Your task to perform on an android device: turn on javascript in the chrome app Image 0: 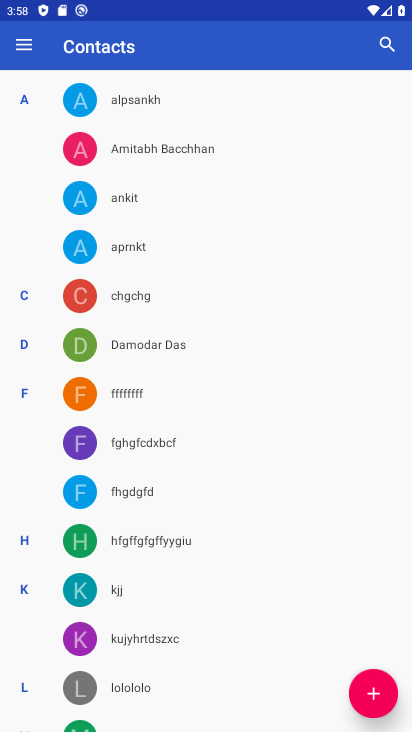
Step 0: press home button
Your task to perform on an android device: turn on javascript in the chrome app Image 1: 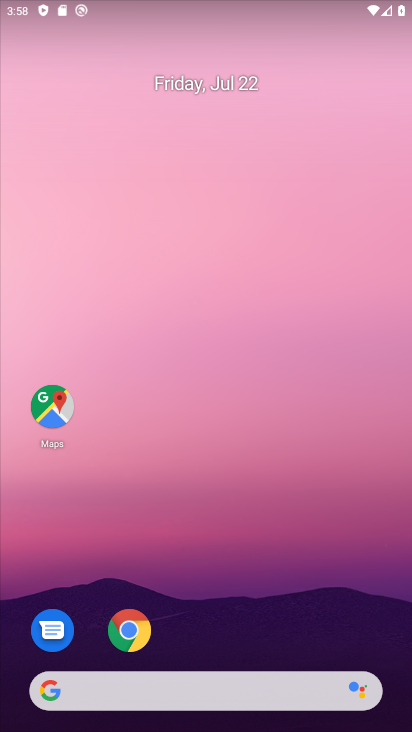
Step 1: click (133, 619)
Your task to perform on an android device: turn on javascript in the chrome app Image 2: 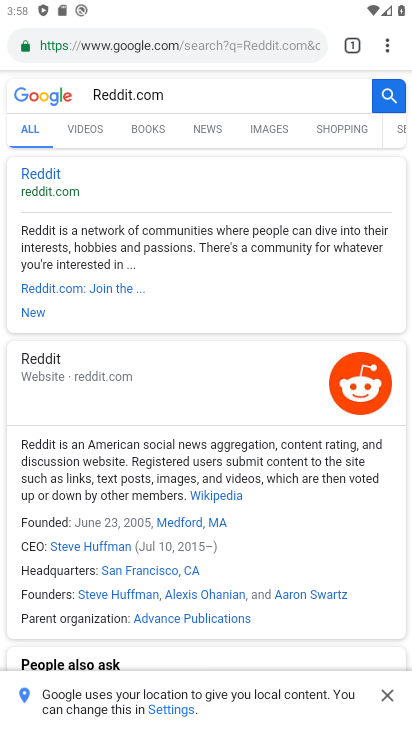
Step 2: click (388, 51)
Your task to perform on an android device: turn on javascript in the chrome app Image 3: 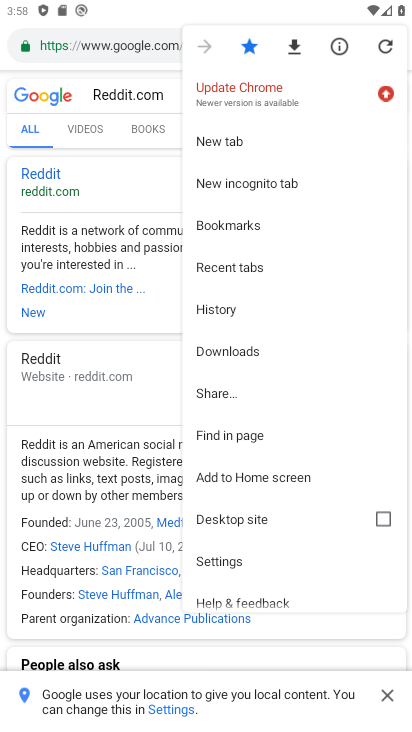
Step 3: click (228, 558)
Your task to perform on an android device: turn on javascript in the chrome app Image 4: 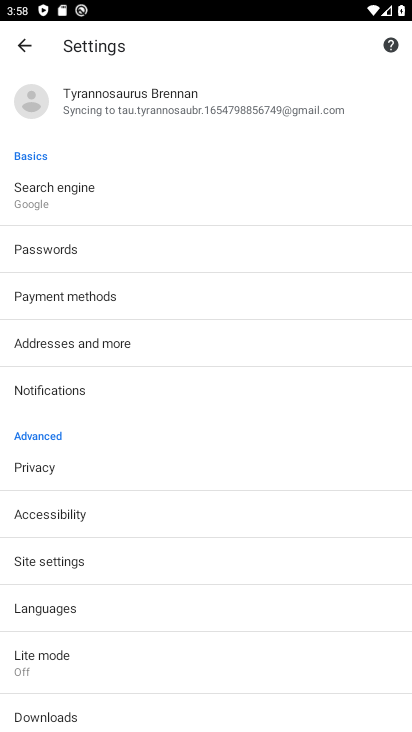
Step 4: click (63, 561)
Your task to perform on an android device: turn on javascript in the chrome app Image 5: 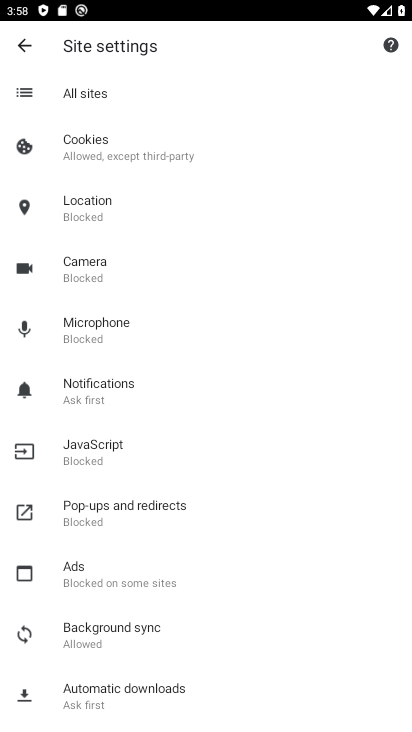
Step 5: click (125, 451)
Your task to perform on an android device: turn on javascript in the chrome app Image 6: 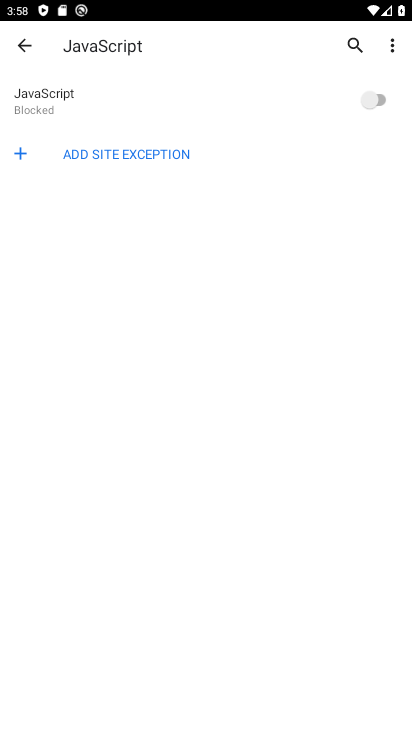
Step 6: click (326, 96)
Your task to perform on an android device: turn on javascript in the chrome app Image 7: 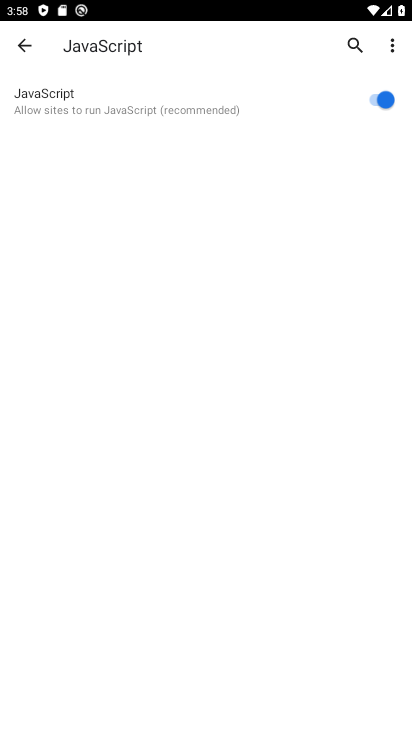
Step 7: task complete